Your task to perform on an android device: Look up the best rated gaming chairs on Target. Image 0: 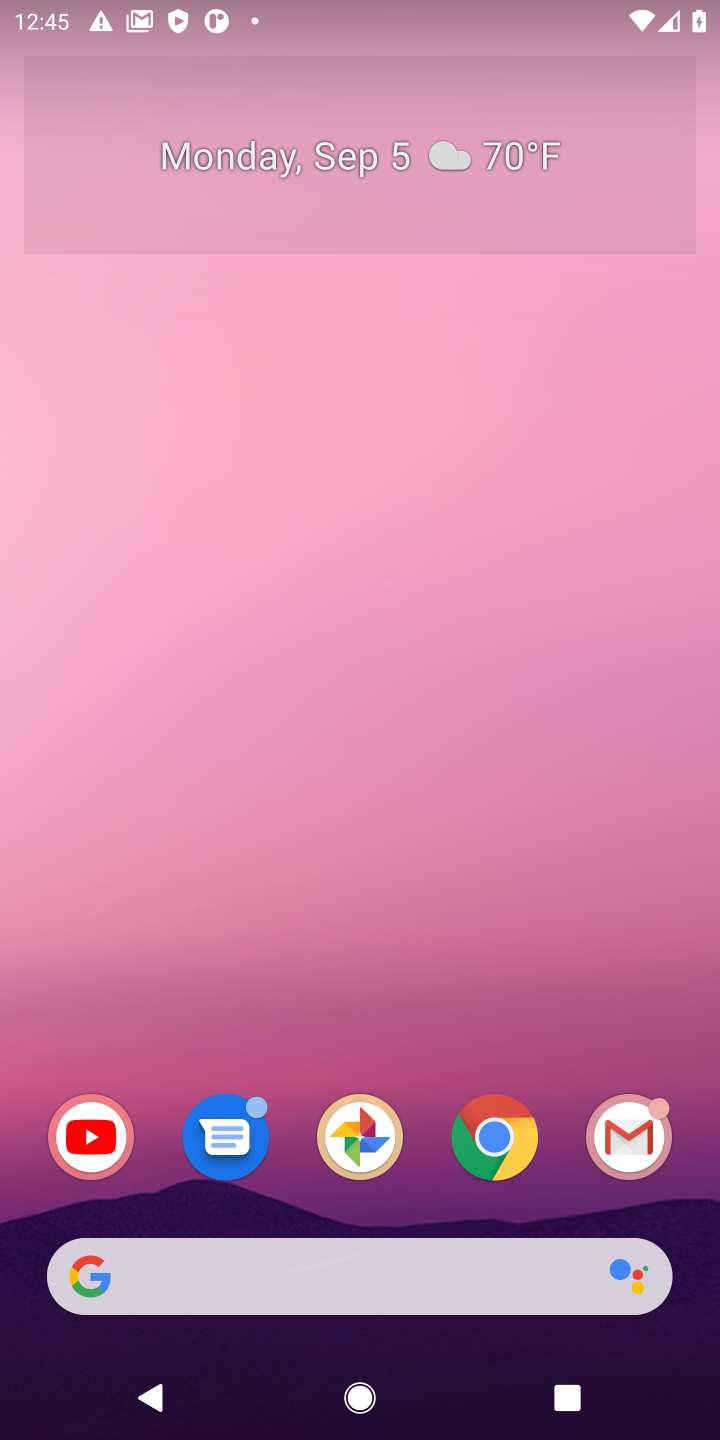
Step 0: click (499, 1175)
Your task to perform on an android device: Look up the best rated gaming chairs on Target. Image 1: 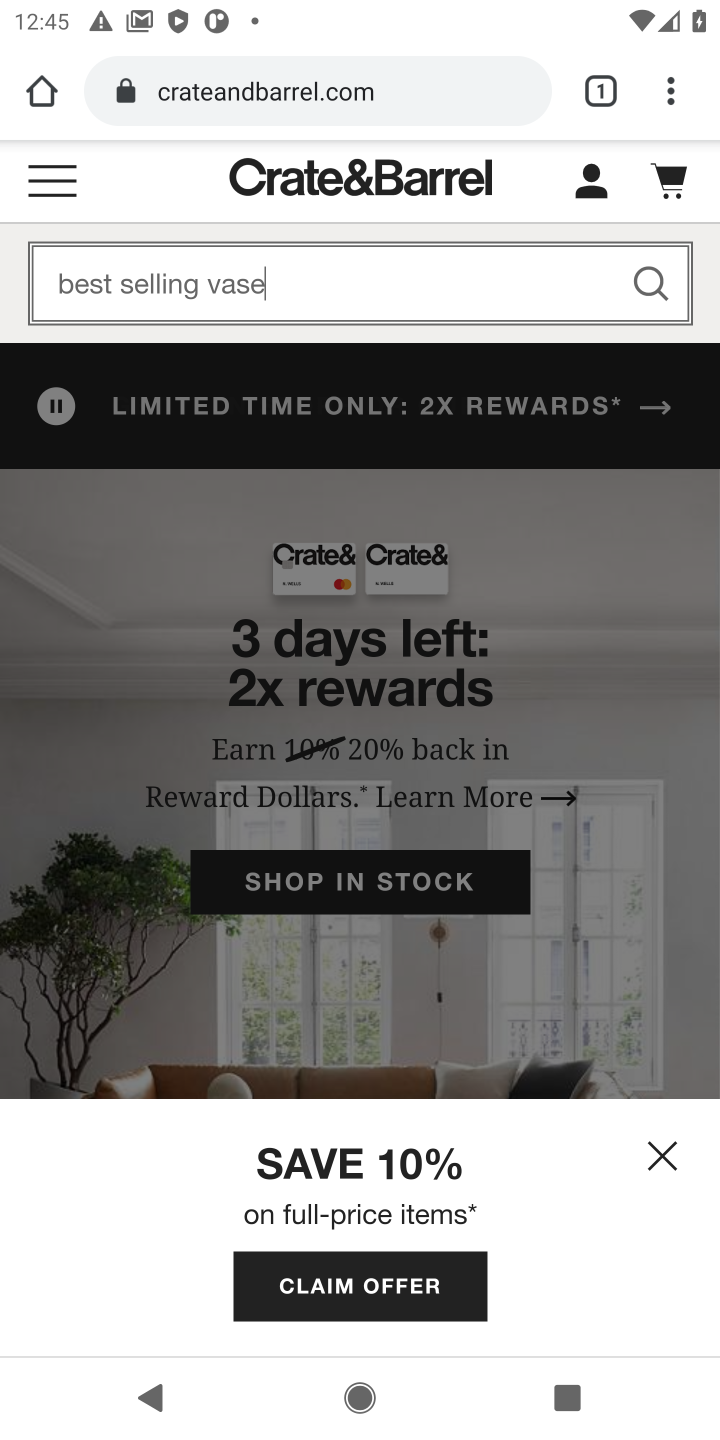
Step 1: click (324, 90)
Your task to perform on an android device: Look up the best rated gaming chairs on Target. Image 2: 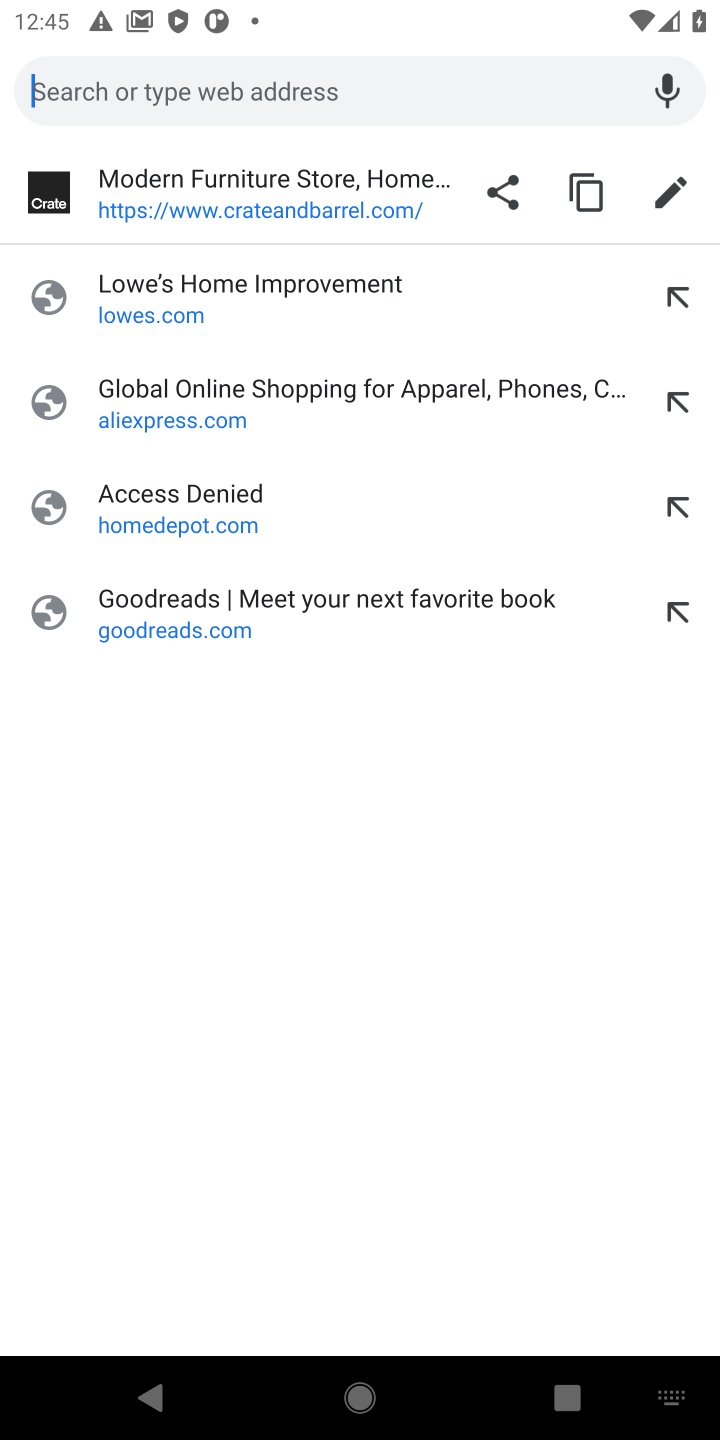
Step 2: click (324, 90)
Your task to perform on an android device: Look up the best rated gaming chairs on Target. Image 3: 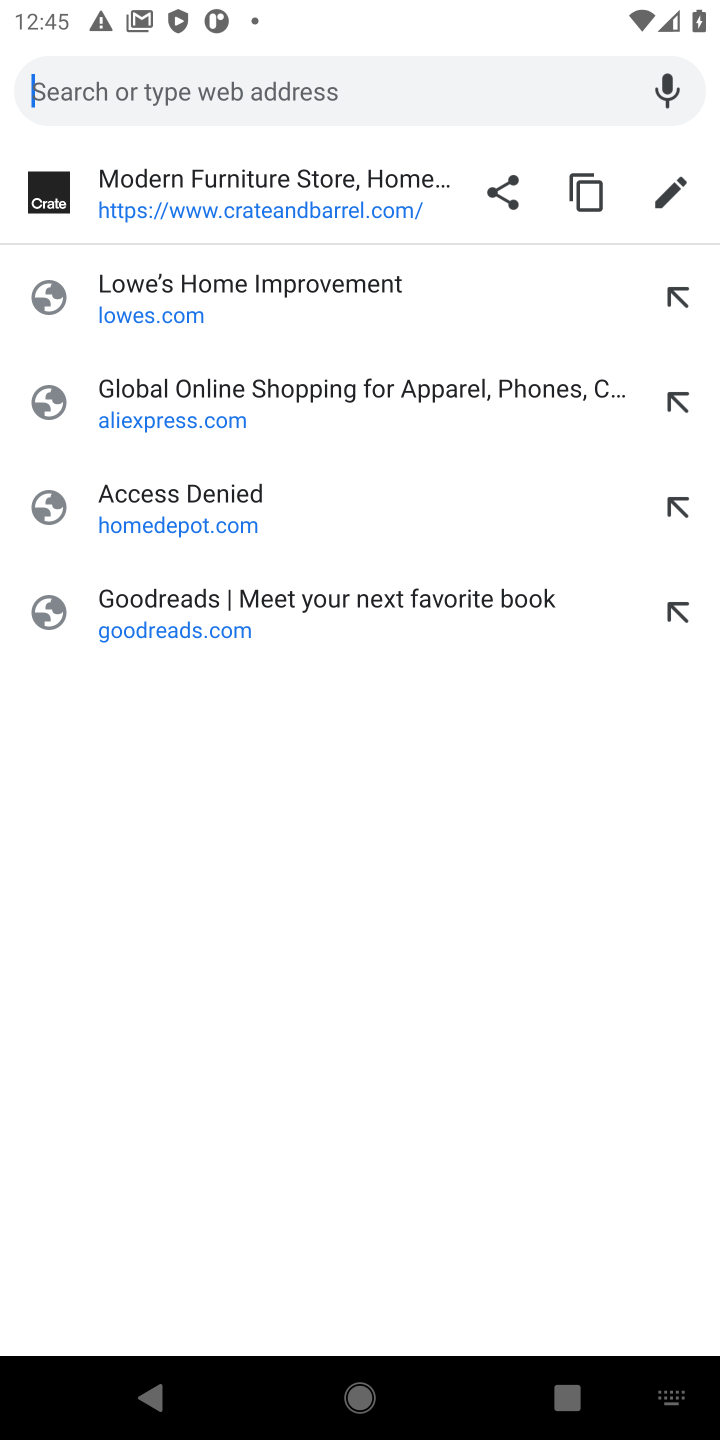
Step 3: type "target"
Your task to perform on an android device: Look up the best rated gaming chairs on Target. Image 4: 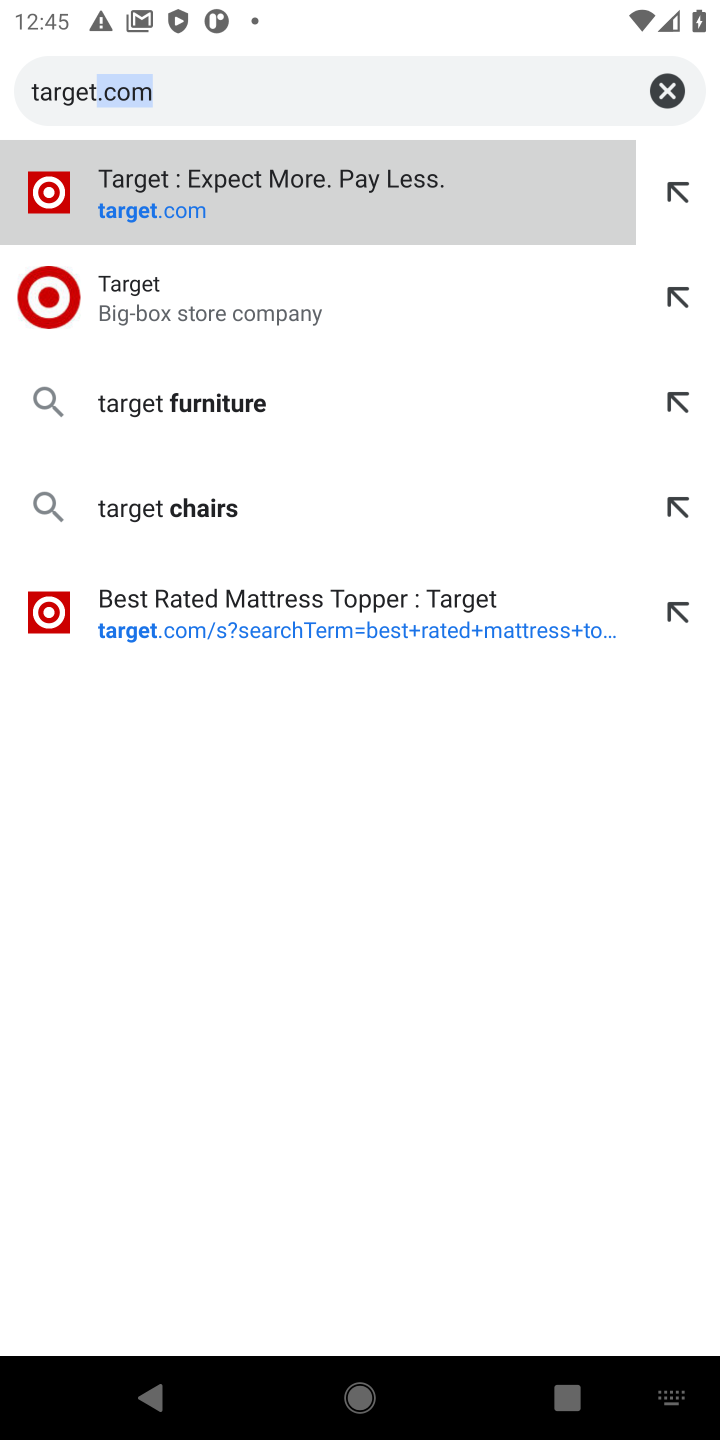
Step 4: click (261, 214)
Your task to perform on an android device: Look up the best rated gaming chairs on Target. Image 5: 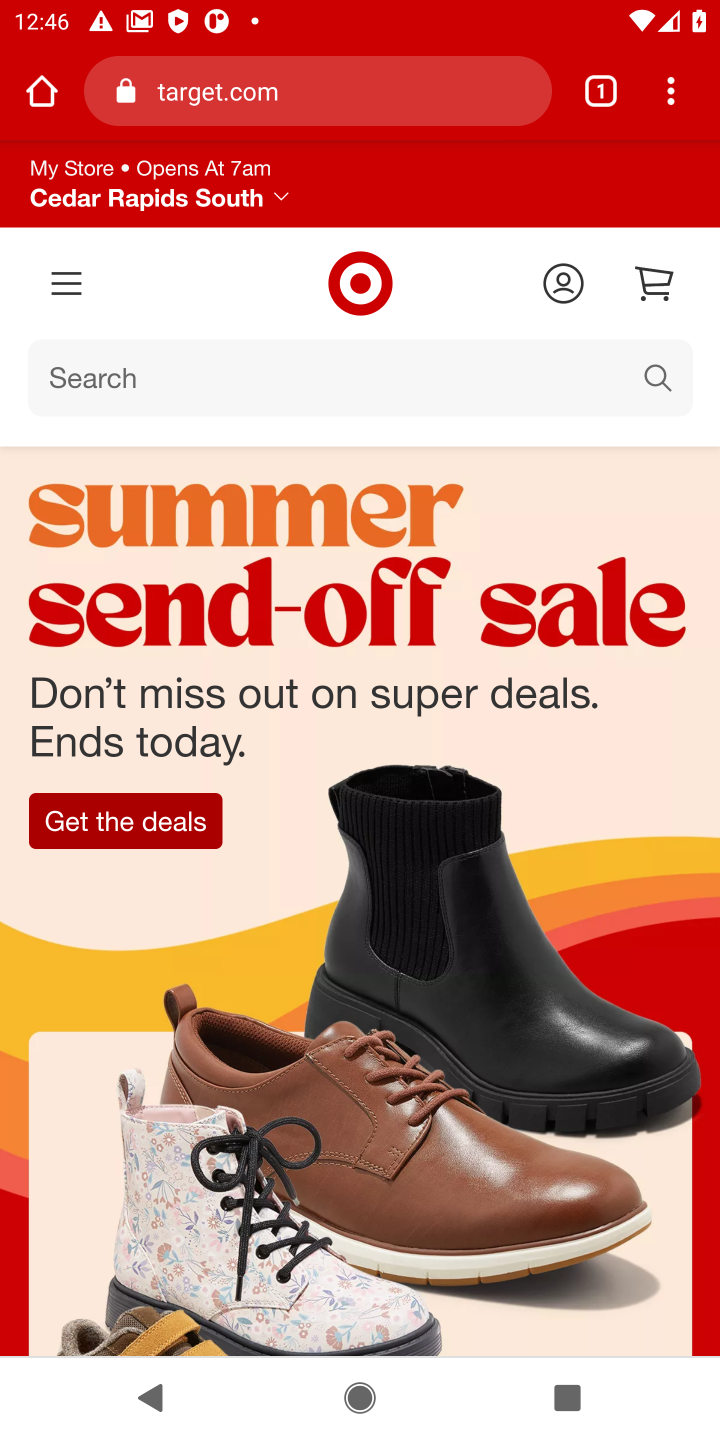
Step 5: click (238, 365)
Your task to perform on an android device: Look up the best rated gaming chairs on Target. Image 6: 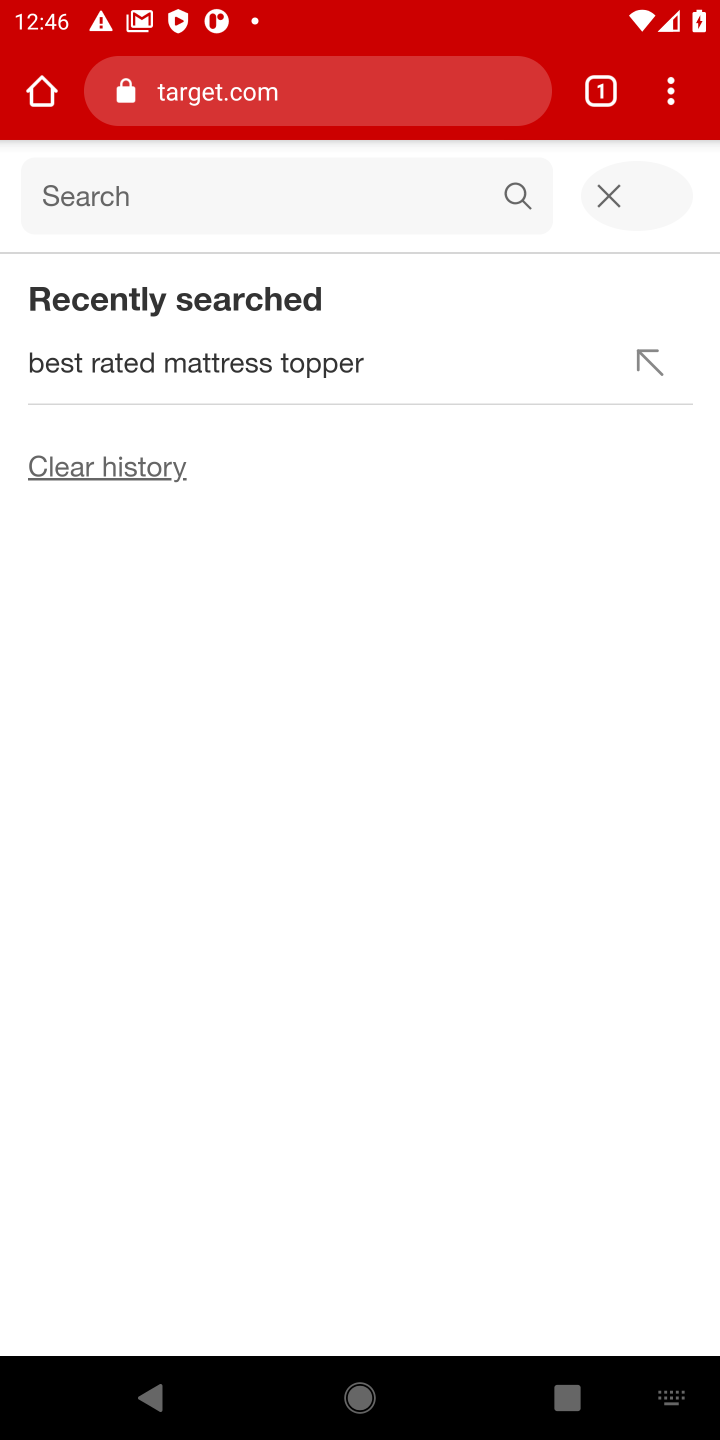
Step 6: type "best rated gaming chair"
Your task to perform on an android device: Look up the best rated gaming chairs on Target. Image 7: 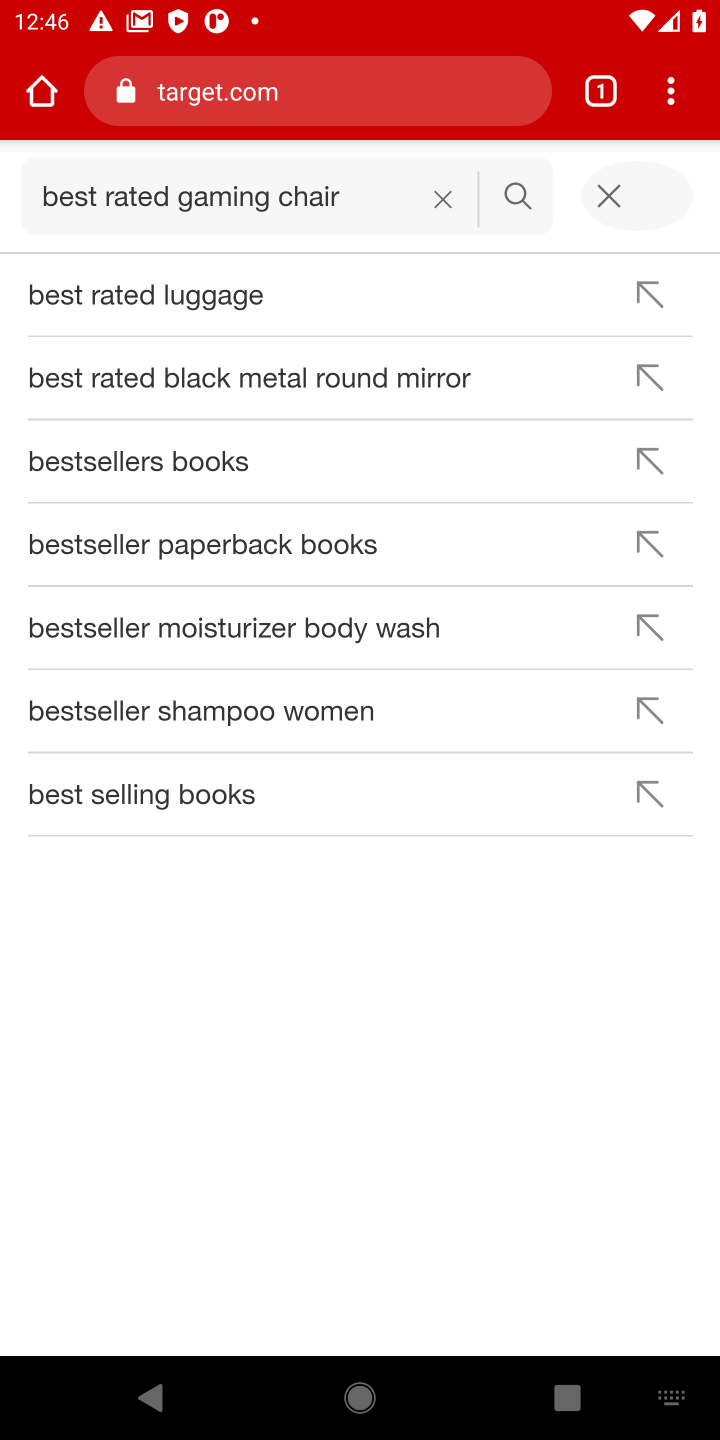
Step 7: press enter
Your task to perform on an android device: Look up the best rated gaming chairs on Target. Image 8: 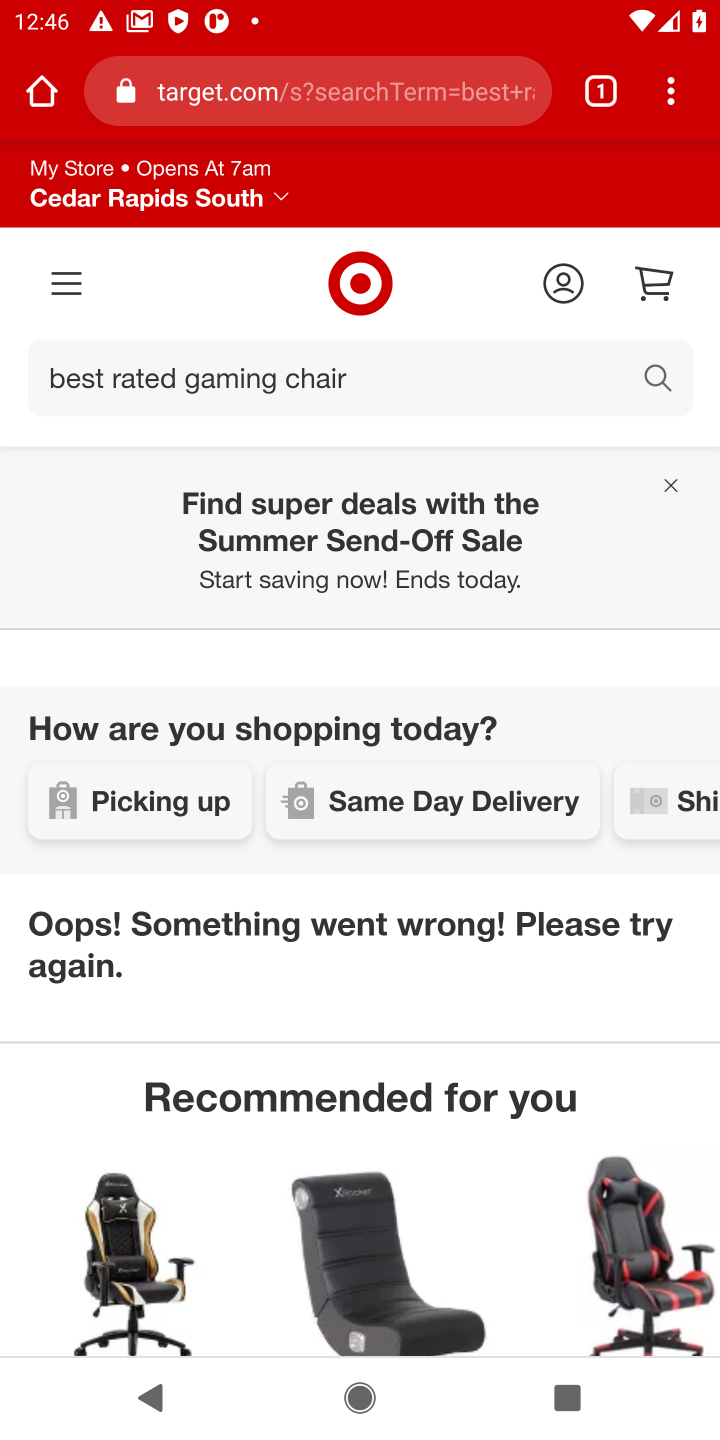
Step 8: task complete